Your task to perform on an android device: manage bookmarks in the chrome app Image 0: 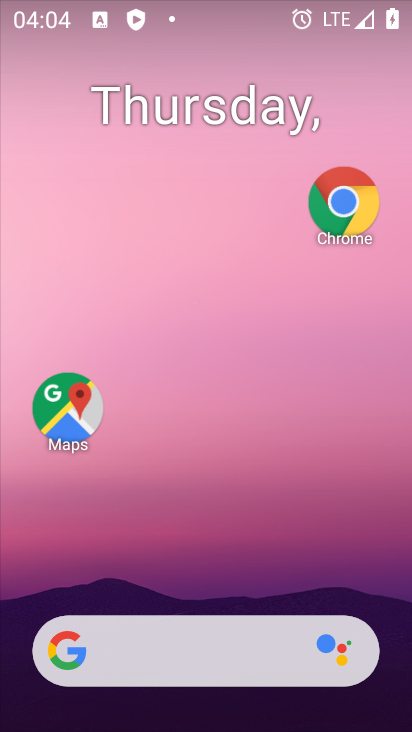
Step 0: drag from (329, 639) to (264, 23)
Your task to perform on an android device: manage bookmarks in the chrome app Image 1: 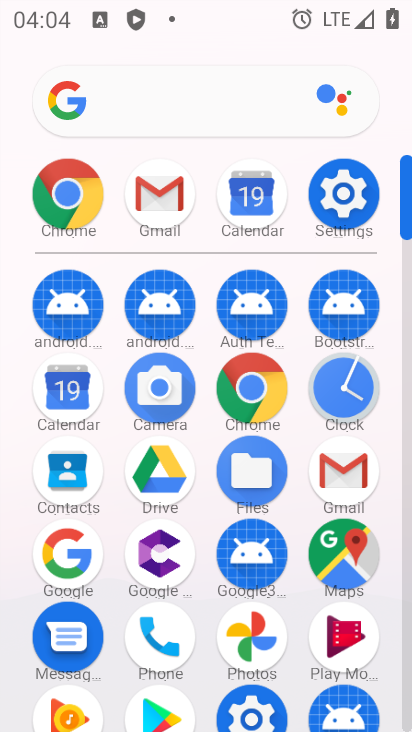
Step 1: click (278, 378)
Your task to perform on an android device: manage bookmarks in the chrome app Image 2: 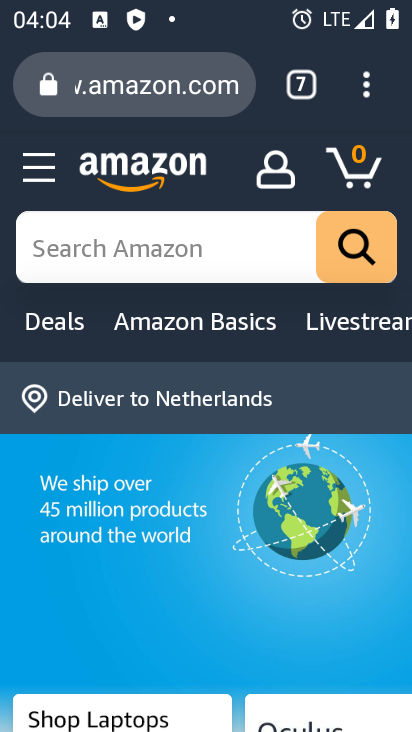
Step 2: click (376, 78)
Your task to perform on an android device: manage bookmarks in the chrome app Image 3: 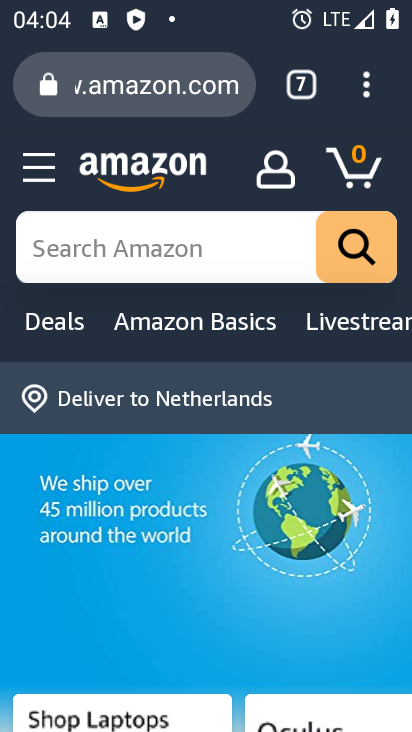
Step 3: drag from (365, 78) to (313, 258)
Your task to perform on an android device: manage bookmarks in the chrome app Image 4: 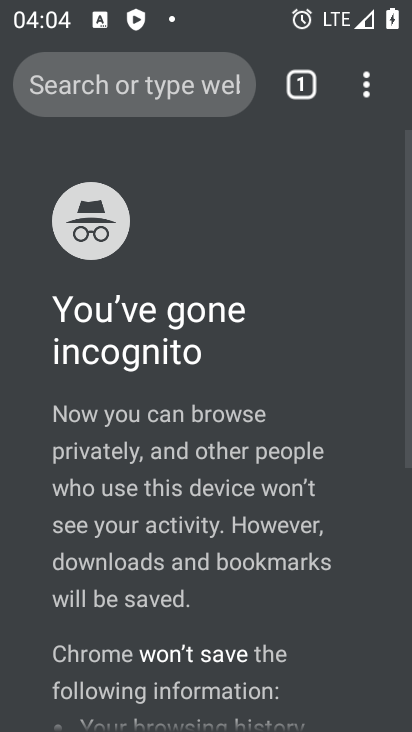
Step 4: drag from (366, 69) to (344, 165)
Your task to perform on an android device: manage bookmarks in the chrome app Image 5: 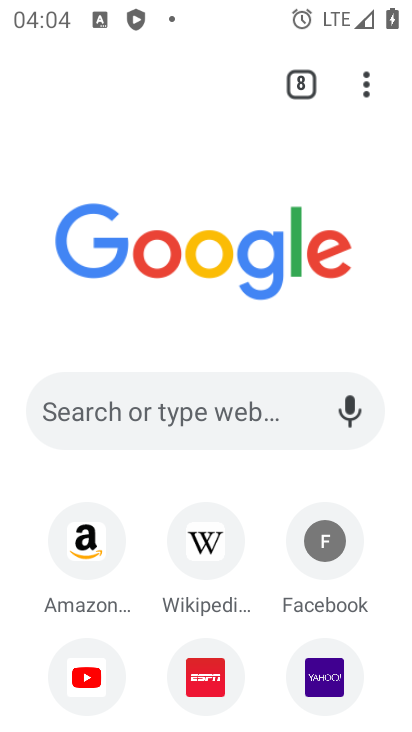
Step 5: click (190, 273)
Your task to perform on an android device: manage bookmarks in the chrome app Image 6: 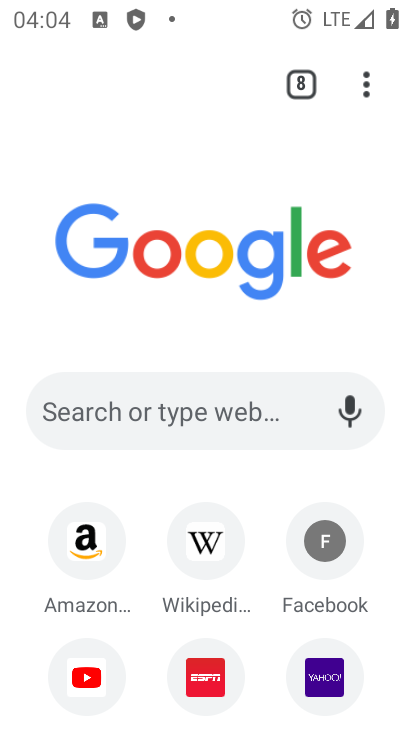
Step 6: task complete